Your task to perform on an android device: check android version Image 0: 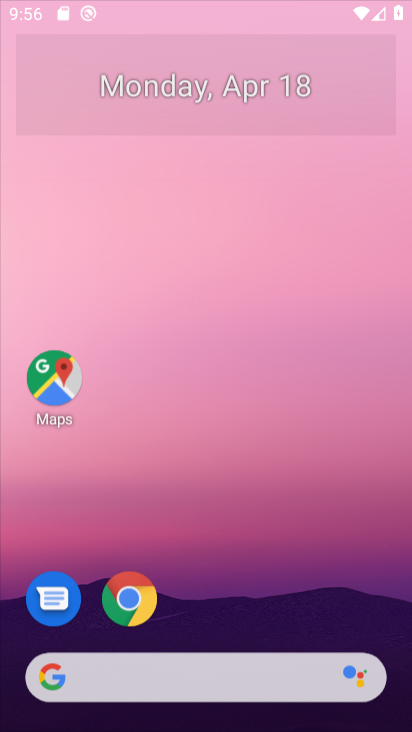
Step 0: click (128, 71)
Your task to perform on an android device: check android version Image 1: 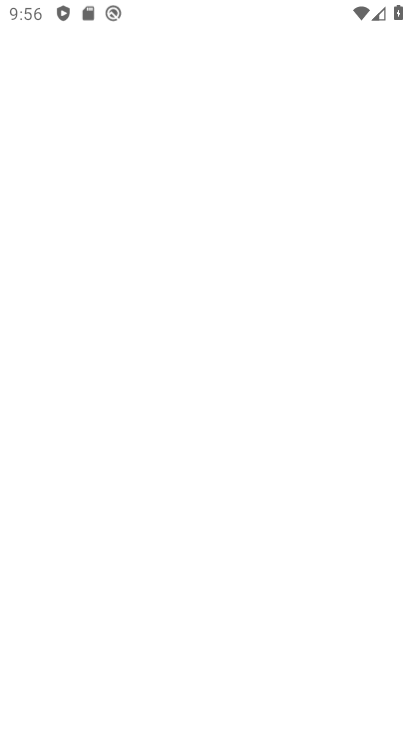
Step 1: drag from (131, 521) to (217, 485)
Your task to perform on an android device: check android version Image 2: 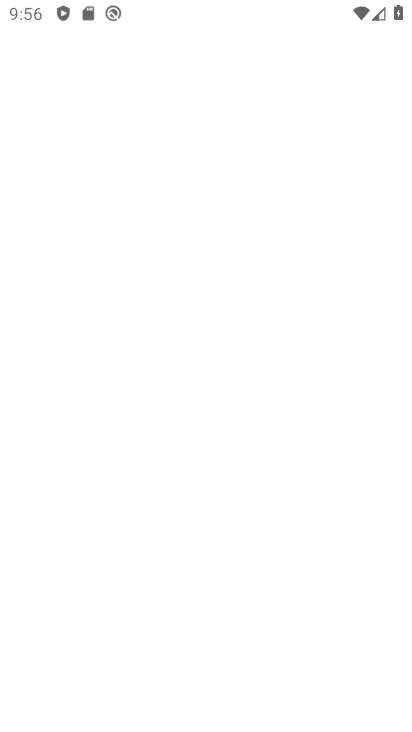
Step 2: press home button
Your task to perform on an android device: check android version Image 3: 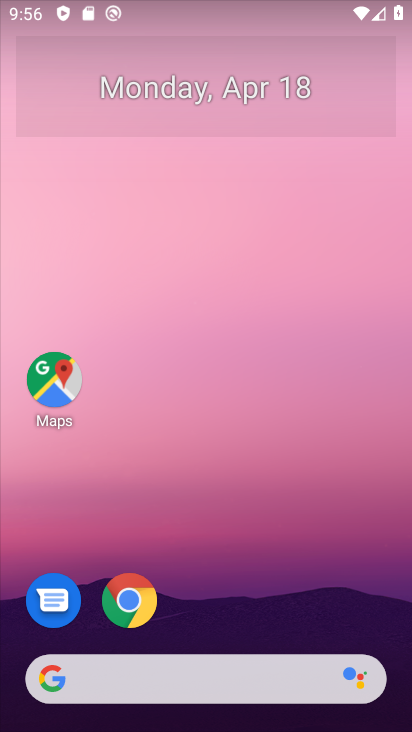
Step 3: drag from (247, 642) to (150, 58)
Your task to perform on an android device: check android version Image 4: 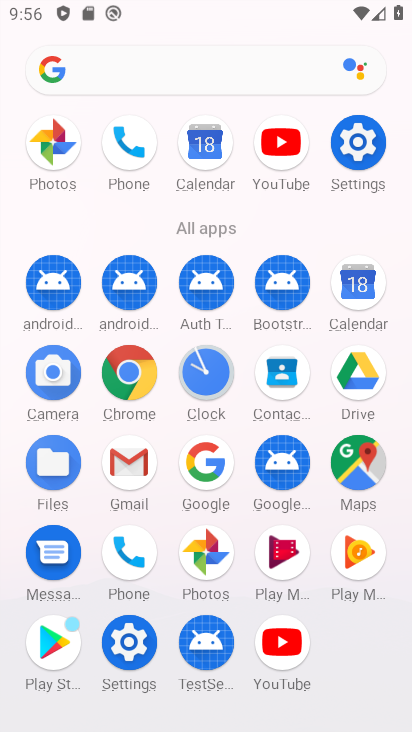
Step 4: click (346, 161)
Your task to perform on an android device: check android version Image 5: 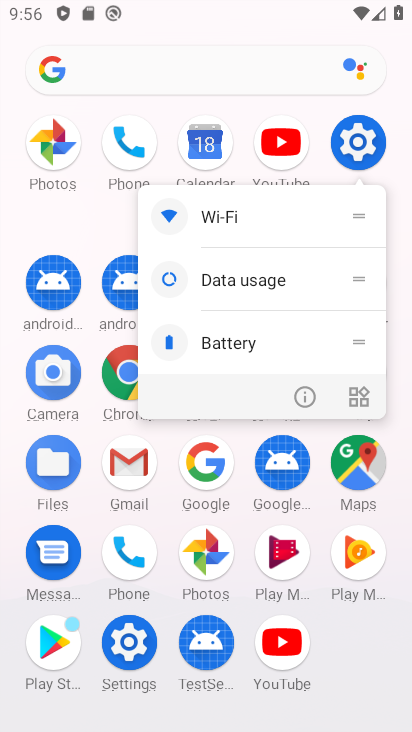
Step 5: click (363, 139)
Your task to perform on an android device: check android version Image 6: 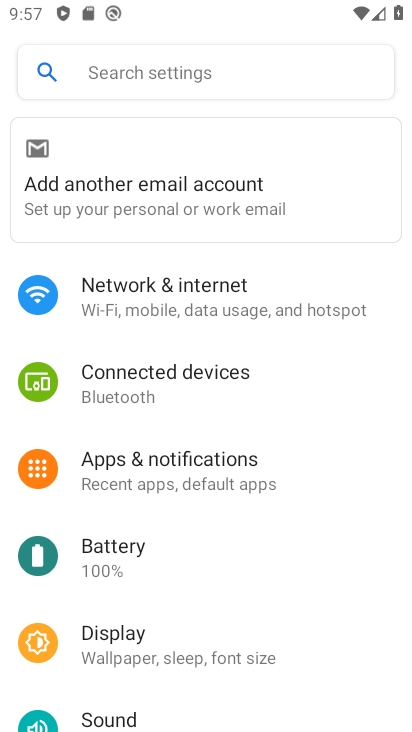
Step 6: drag from (300, 587) to (294, 128)
Your task to perform on an android device: check android version Image 7: 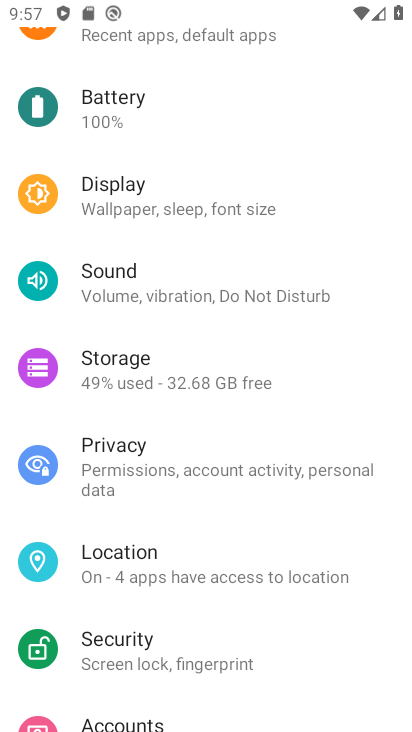
Step 7: drag from (240, 626) to (192, 90)
Your task to perform on an android device: check android version Image 8: 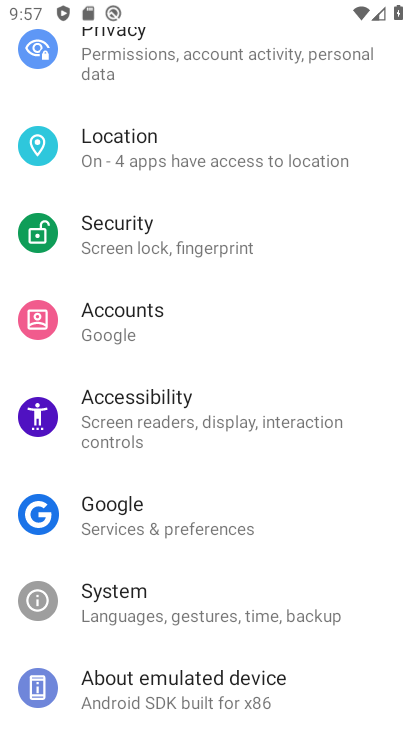
Step 8: click (153, 670)
Your task to perform on an android device: check android version Image 9: 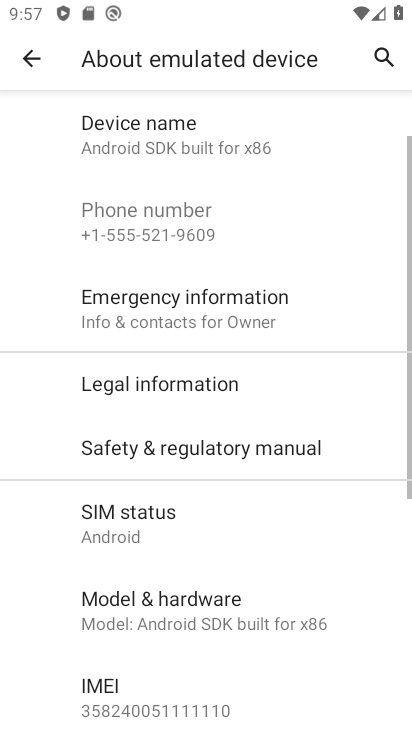
Step 9: drag from (118, 651) to (109, 153)
Your task to perform on an android device: check android version Image 10: 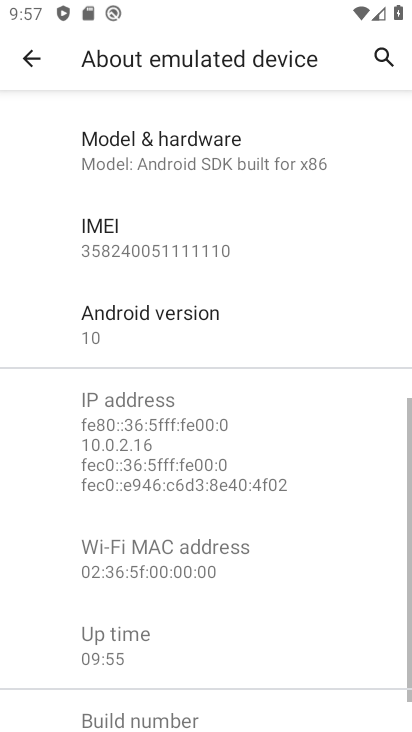
Step 10: drag from (104, 399) to (104, 281)
Your task to perform on an android device: check android version Image 11: 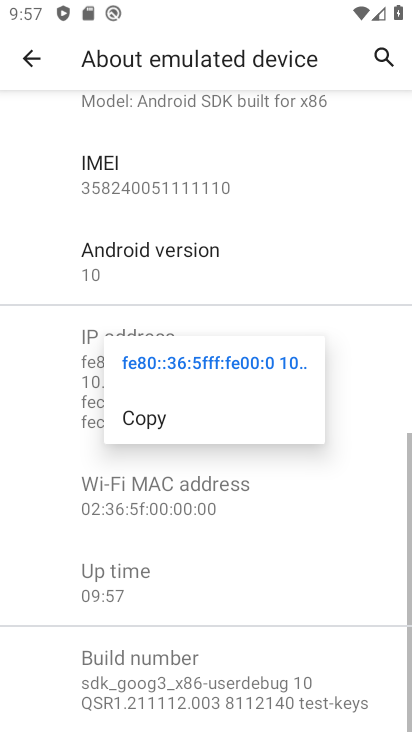
Step 11: click (103, 279)
Your task to perform on an android device: check android version Image 12: 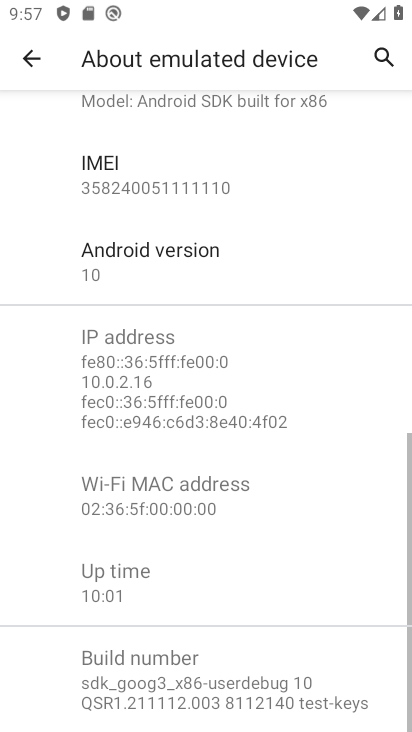
Step 12: click (172, 254)
Your task to perform on an android device: check android version Image 13: 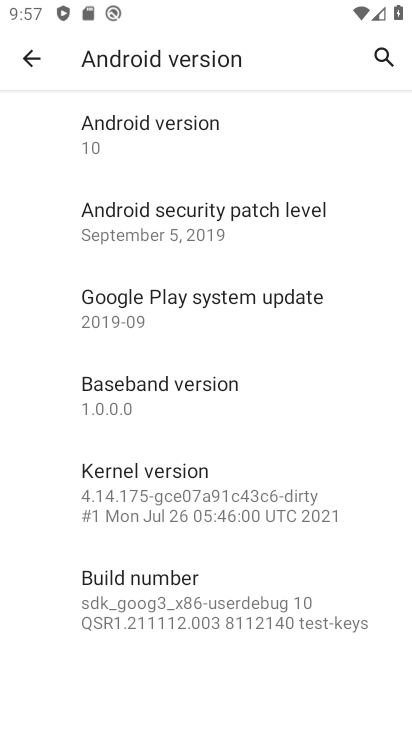
Step 13: task complete